Your task to perform on an android device: Go to Yahoo.com Image 0: 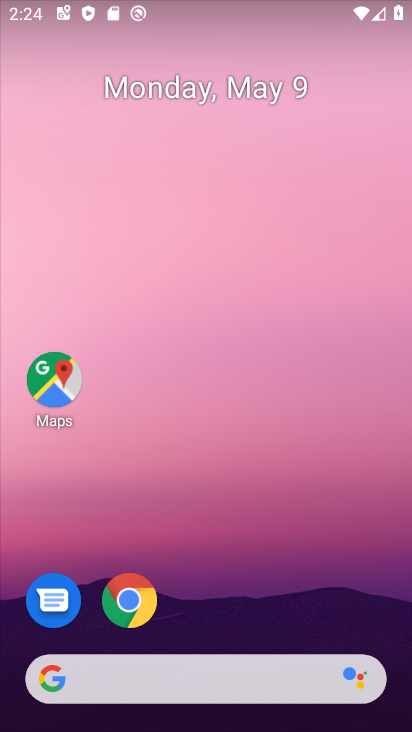
Step 0: click (123, 604)
Your task to perform on an android device: Go to Yahoo.com Image 1: 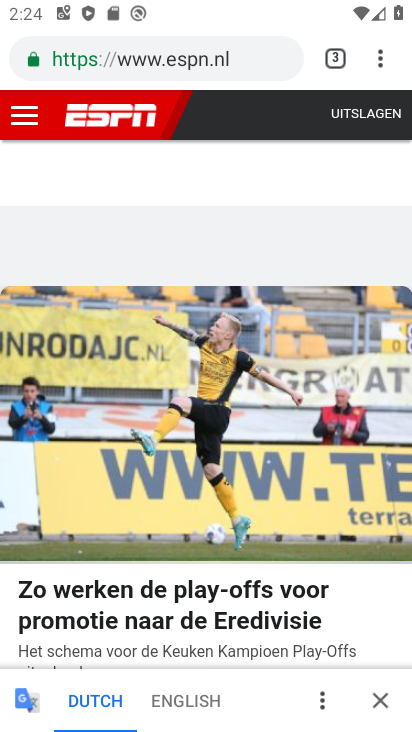
Step 1: click (331, 52)
Your task to perform on an android device: Go to Yahoo.com Image 2: 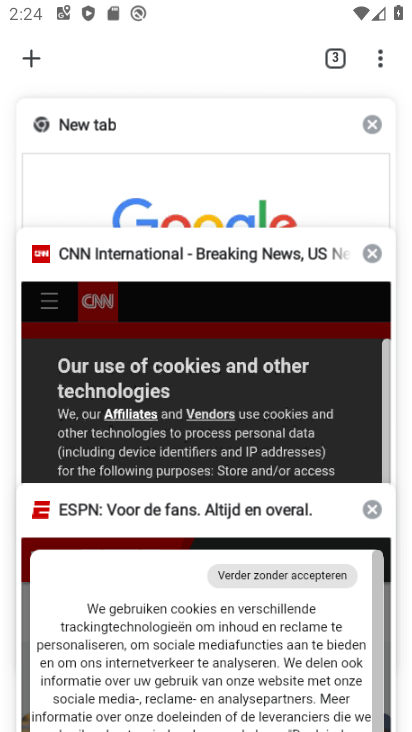
Step 2: click (125, 126)
Your task to perform on an android device: Go to Yahoo.com Image 3: 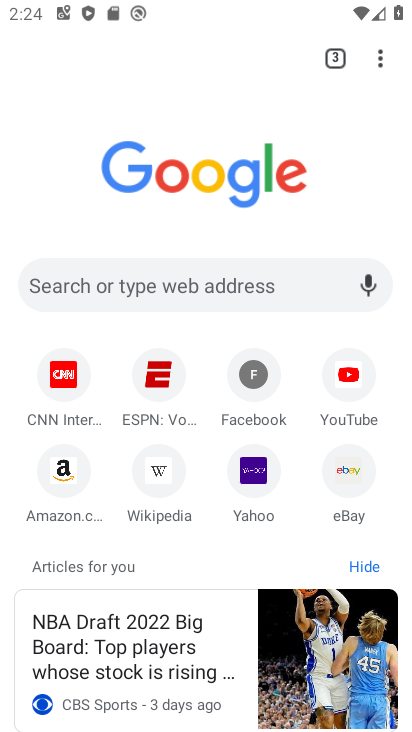
Step 3: drag from (157, 480) to (172, 323)
Your task to perform on an android device: Go to Yahoo.com Image 4: 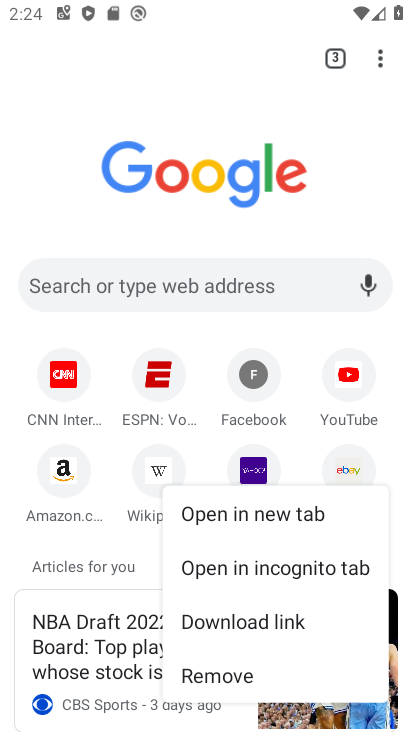
Step 4: click (261, 476)
Your task to perform on an android device: Go to Yahoo.com Image 5: 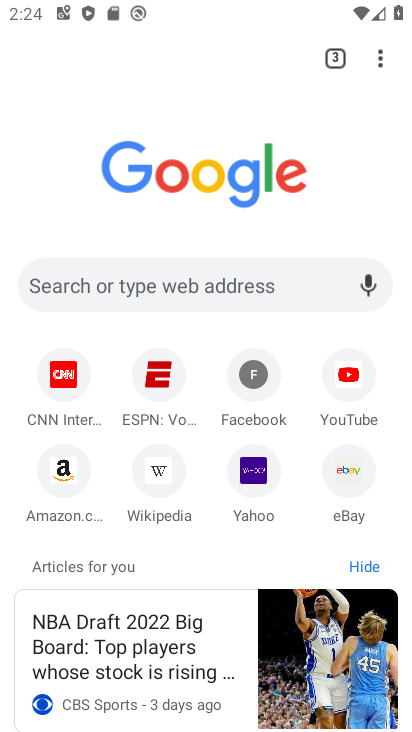
Step 5: click (259, 465)
Your task to perform on an android device: Go to Yahoo.com Image 6: 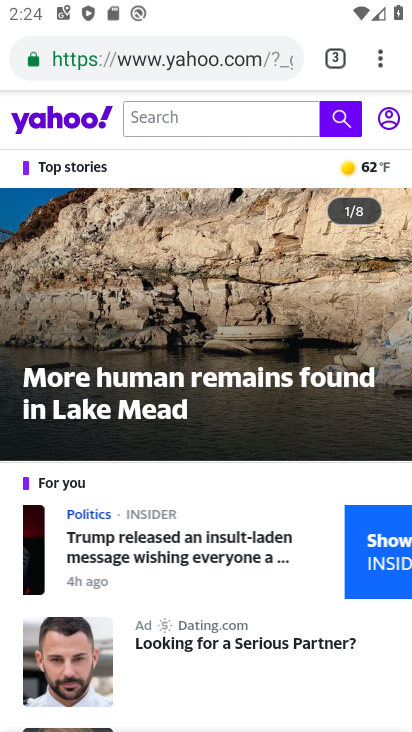
Step 6: task complete